Your task to perform on an android device: turn on improve location accuracy Image 0: 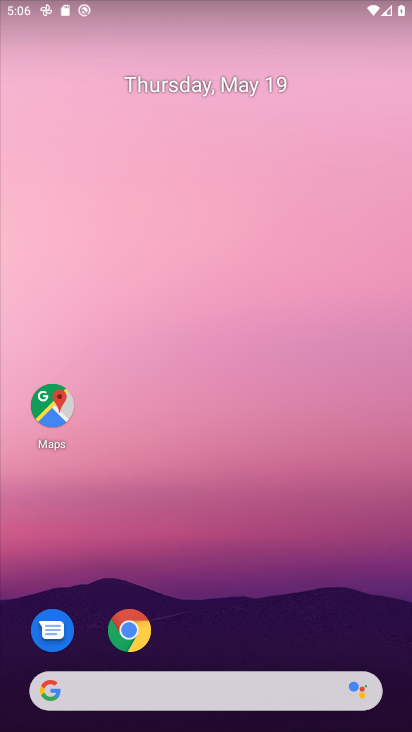
Step 0: drag from (290, 562) to (306, 18)
Your task to perform on an android device: turn on improve location accuracy Image 1: 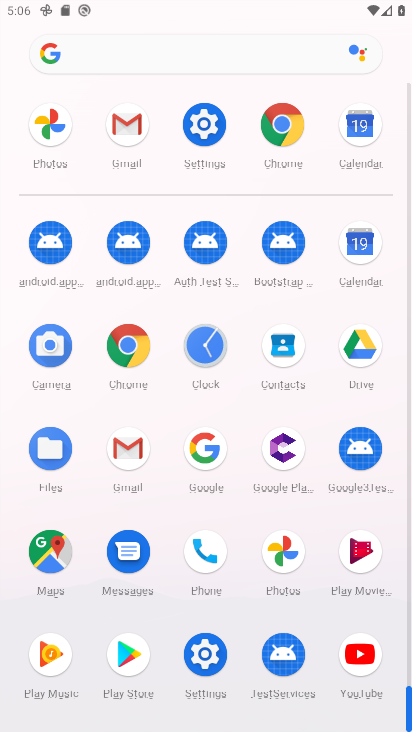
Step 1: click (202, 651)
Your task to perform on an android device: turn on improve location accuracy Image 2: 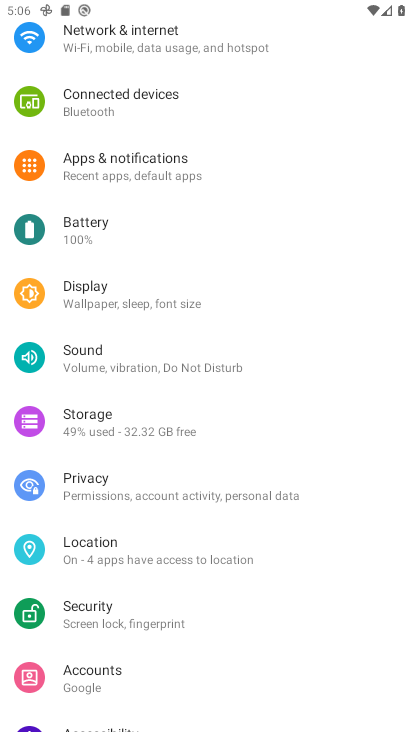
Step 2: drag from (194, 645) to (247, 374)
Your task to perform on an android device: turn on improve location accuracy Image 3: 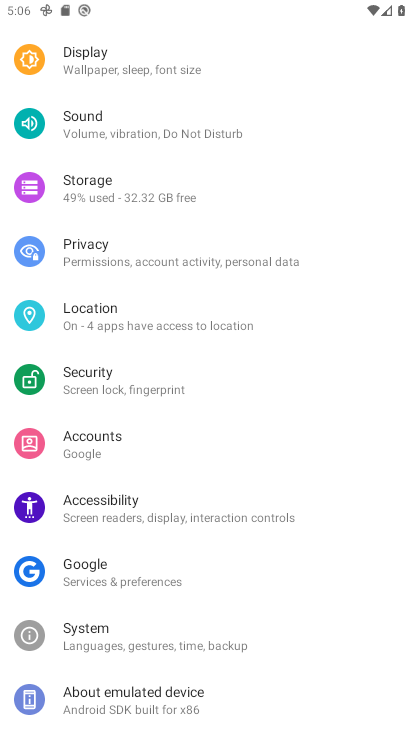
Step 3: click (111, 310)
Your task to perform on an android device: turn on improve location accuracy Image 4: 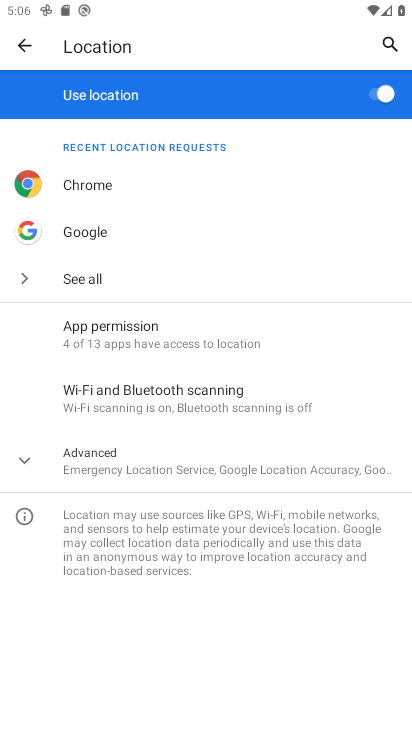
Step 4: click (56, 460)
Your task to perform on an android device: turn on improve location accuracy Image 5: 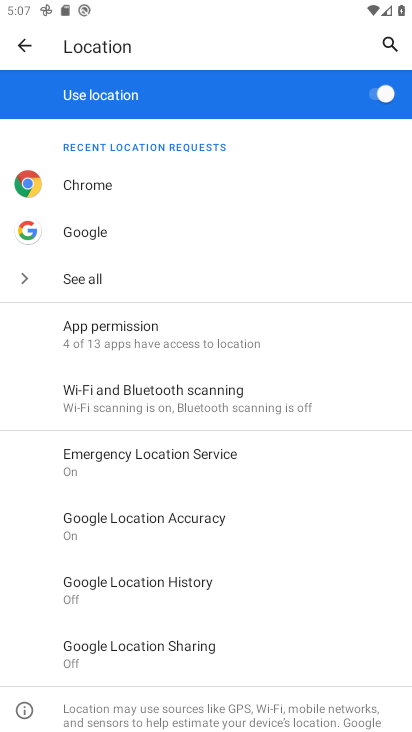
Step 5: click (165, 522)
Your task to perform on an android device: turn on improve location accuracy Image 6: 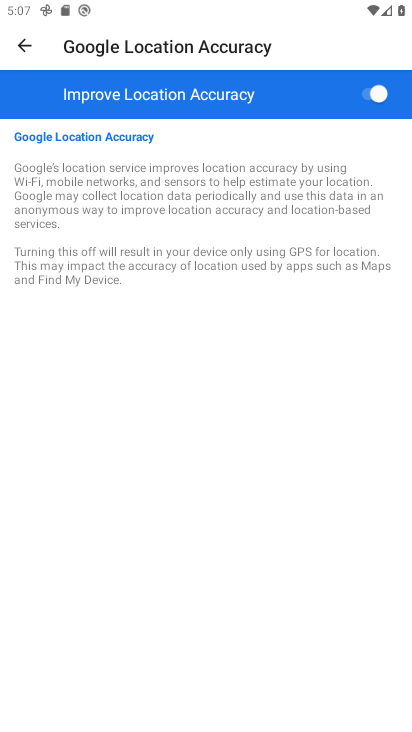
Step 6: task complete